Your task to perform on an android device: uninstall "Grab" Image 0: 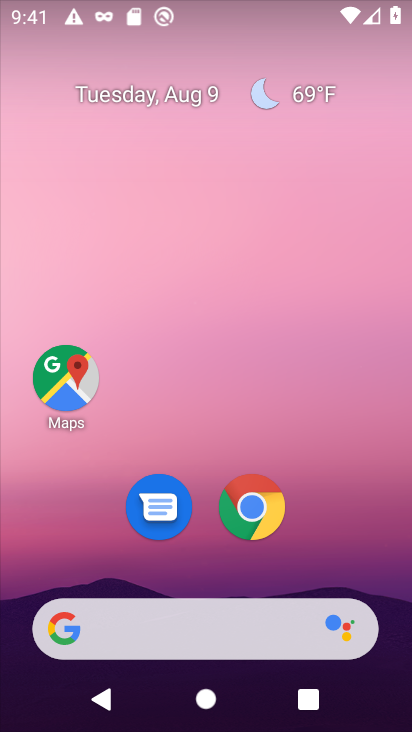
Step 0: drag from (158, 640) to (246, 178)
Your task to perform on an android device: uninstall "Grab" Image 1: 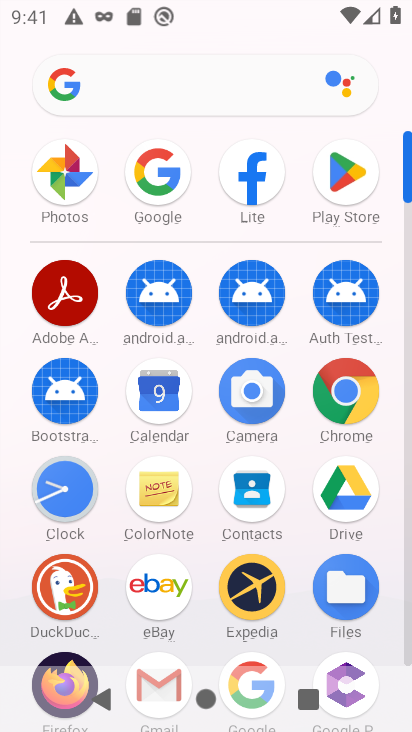
Step 1: click (350, 176)
Your task to perform on an android device: uninstall "Grab" Image 2: 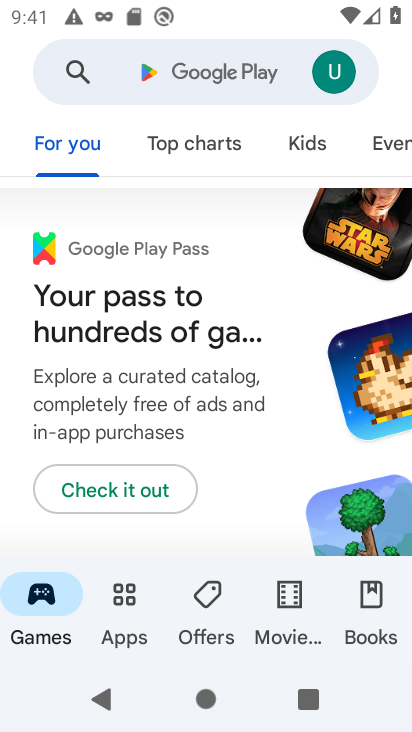
Step 2: click (254, 74)
Your task to perform on an android device: uninstall "Grab" Image 3: 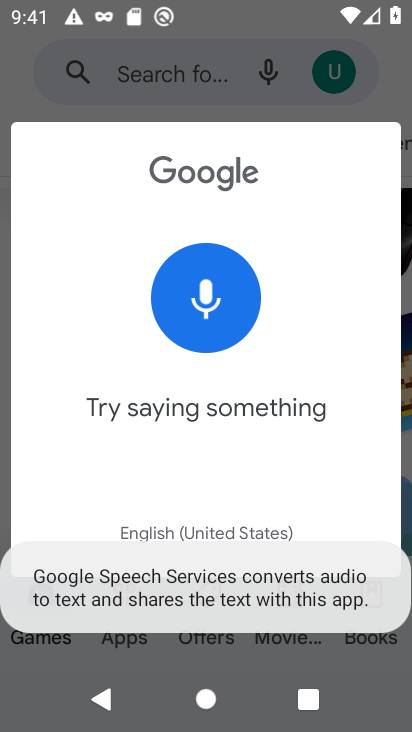
Step 3: click (207, 87)
Your task to perform on an android device: uninstall "Grab" Image 4: 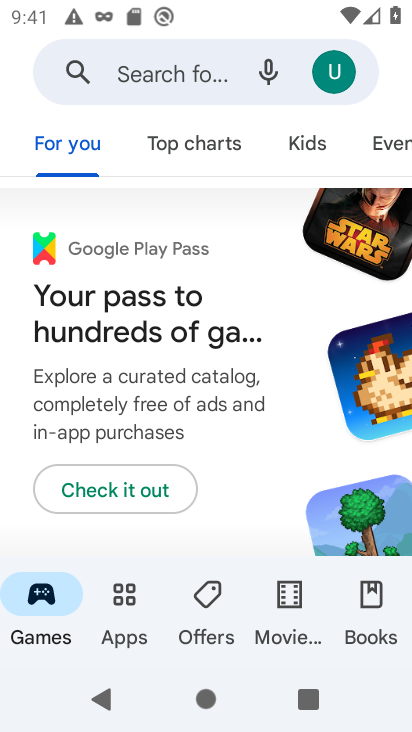
Step 4: click (177, 72)
Your task to perform on an android device: uninstall "Grab" Image 5: 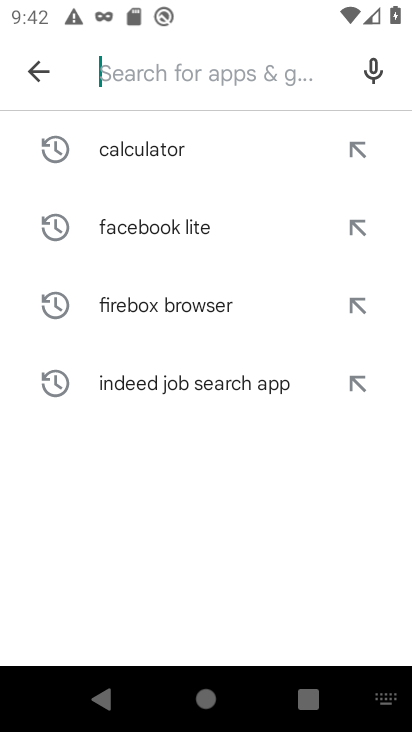
Step 5: type "Grab"
Your task to perform on an android device: uninstall "Grab" Image 6: 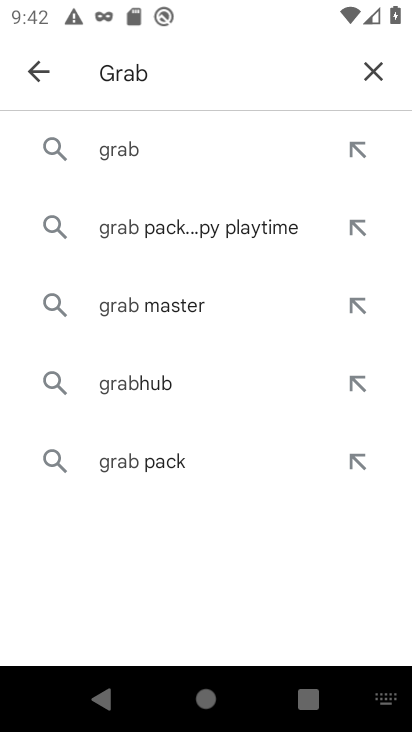
Step 6: click (128, 156)
Your task to perform on an android device: uninstall "Grab" Image 7: 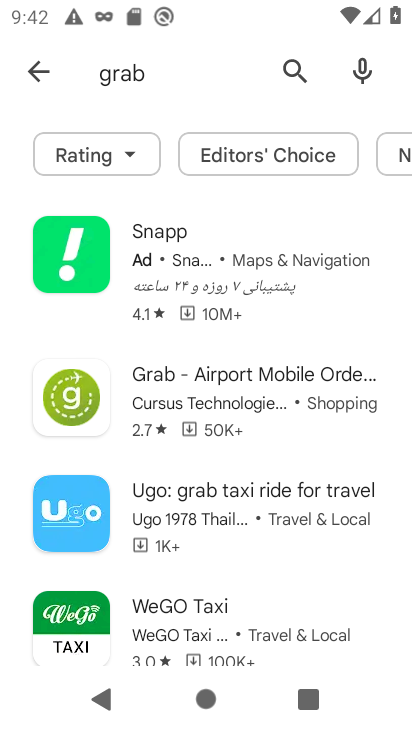
Step 7: task complete